Your task to perform on an android device: create a new album in the google photos Image 0: 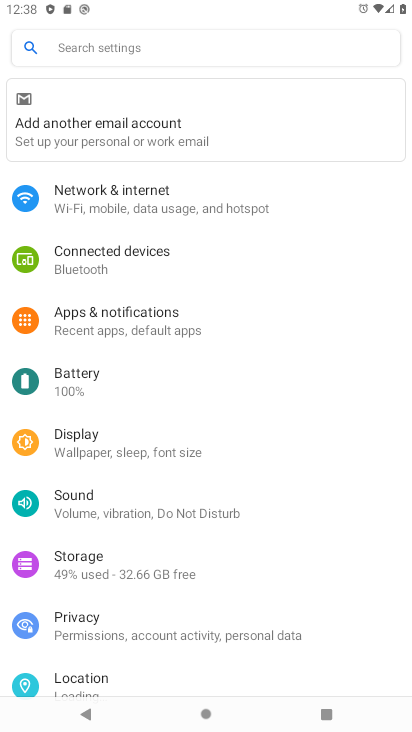
Step 0: press back button
Your task to perform on an android device: create a new album in the google photos Image 1: 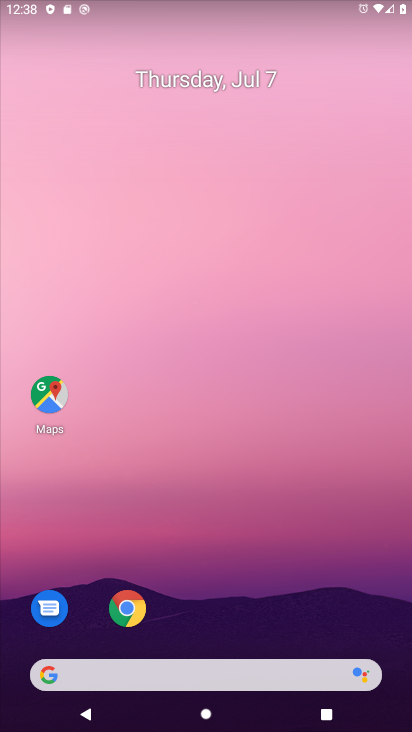
Step 1: drag from (204, 558) to (233, 0)
Your task to perform on an android device: create a new album in the google photos Image 2: 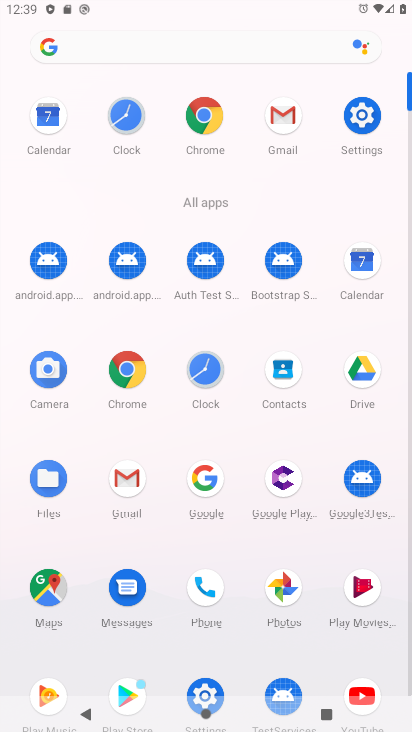
Step 2: click (276, 594)
Your task to perform on an android device: create a new album in the google photos Image 3: 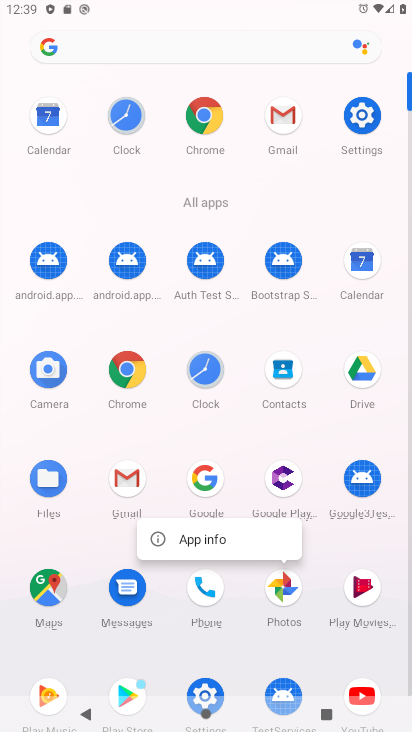
Step 3: click (276, 594)
Your task to perform on an android device: create a new album in the google photos Image 4: 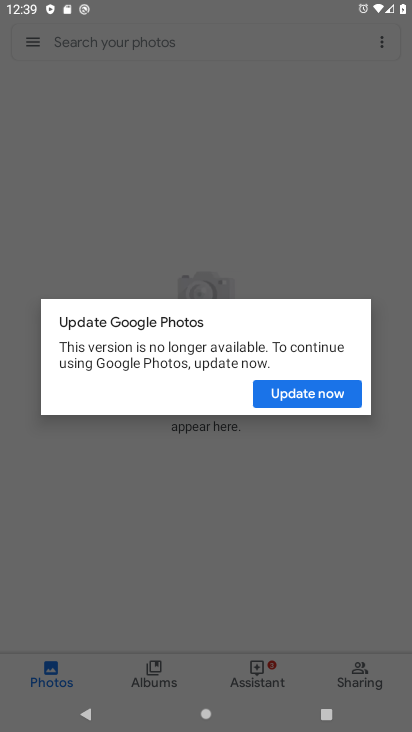
Step 4: press back button
Your task to perform on an android device: create a new album in the google photos Image 5: 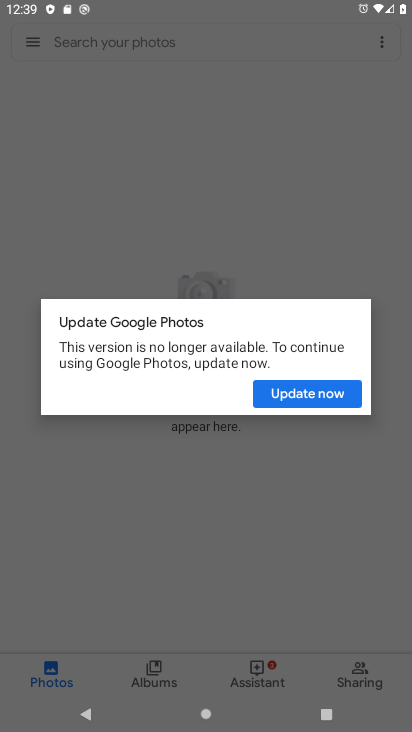
Step 5: press back button
Your task to perform on an android device: create a new album in the google photos Image 6: 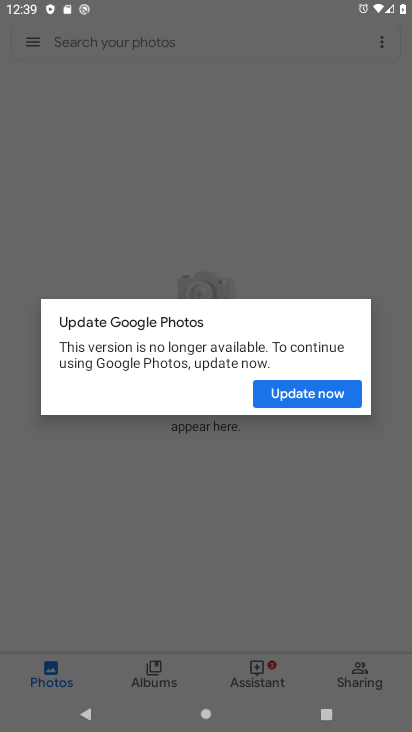
Step 6: press home button
Your task to perform on an android device: create a new album in the google photos Image 7: 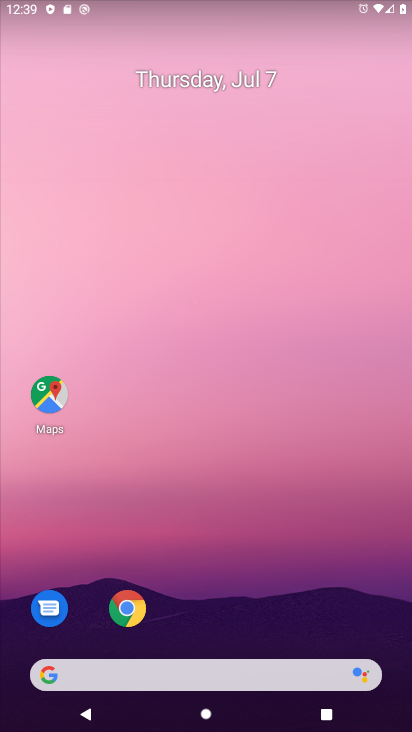
Step 7: drag from (167, 621) to (273, 38)
Your task to perform on an android device: create a new album in the google photos Image 8: 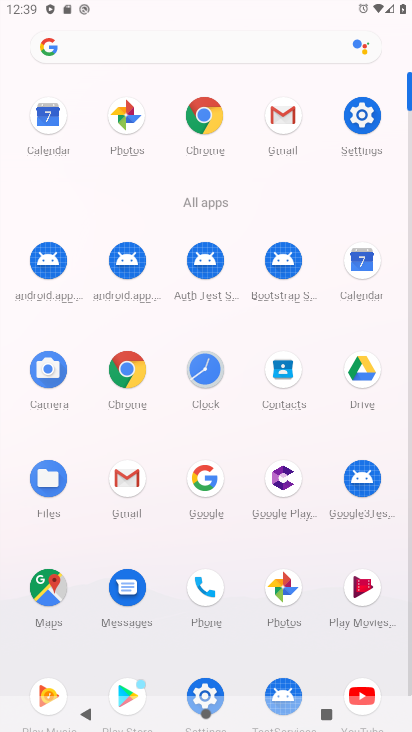
Step 8: click (278, 580)
Your task to perform on an android device: create a new album in the google photos Image 9: 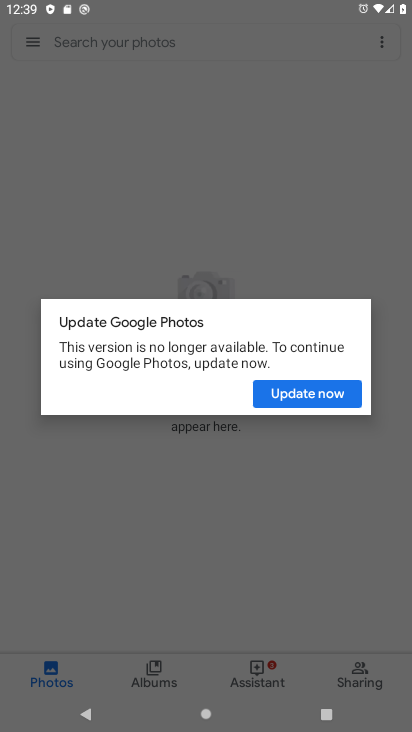
Step 9: click (284, 399)
Your task to perform on an android device: create a new album in the google photos Image 10: 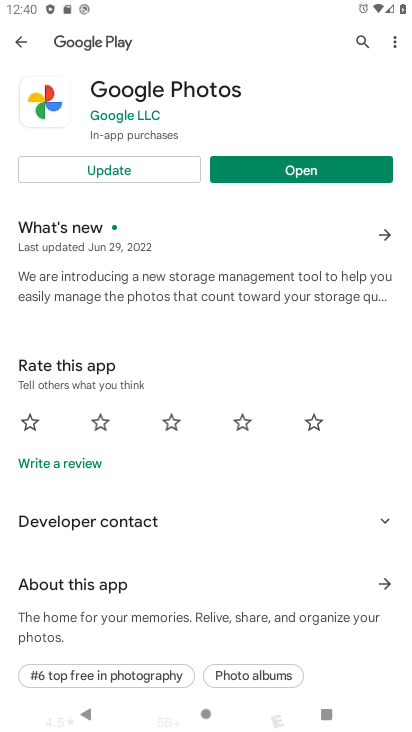
Step 10: click (333, 163)
Your task to perform on an android device: create a new album in the google photos Image 11: 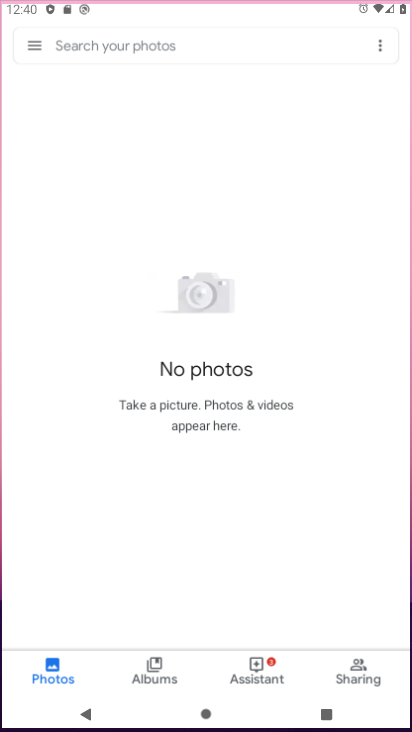
Step 11: click (287, 169)
Your task to perform on an android device: create a new album in the google photos Image 12: 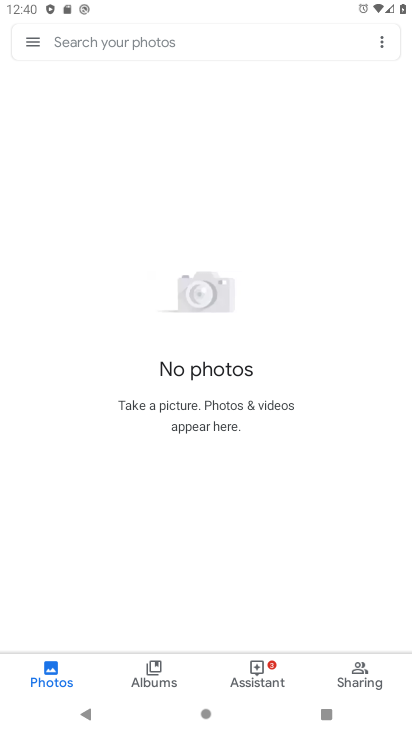
Step 12: click (25, 36)
Your task to perform on an android device: create a new album in the google photos Image 13: 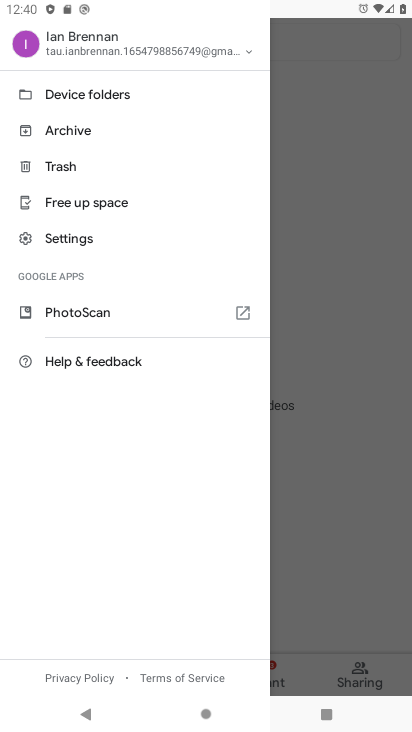
Step 13: click (365, 259)
Your task to perform on an android device: create a new album in the google photos Image 14: 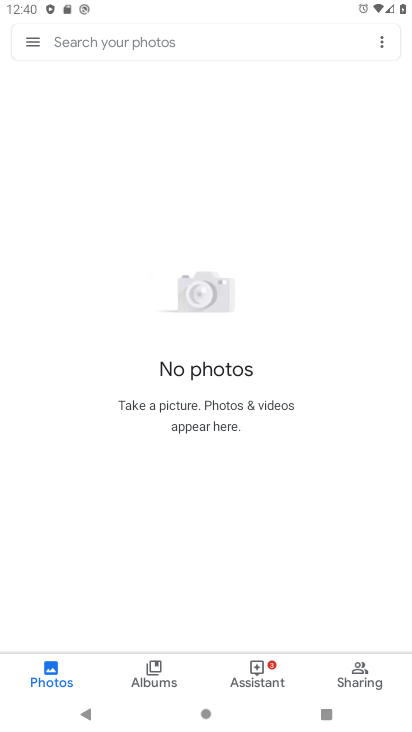
Step 14: click (166, 652)
Your task to perform on an android device: create a new album in the google photos Image 15: 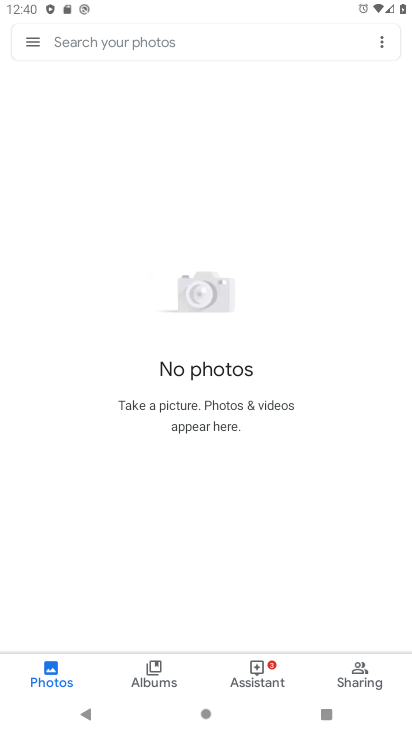
Step 15: click (148, 672)
Your task to perform on an android device: create a new album in the google photos Image 16: 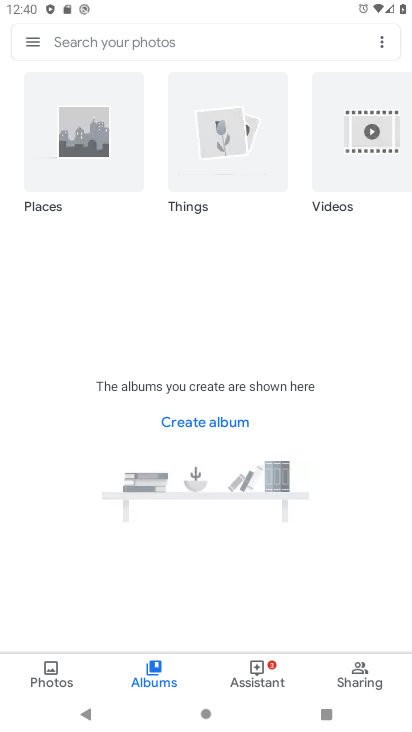
Step 16: click (211, 425)
Your task to perform on an android device: create a new album in the google photos Image 17: 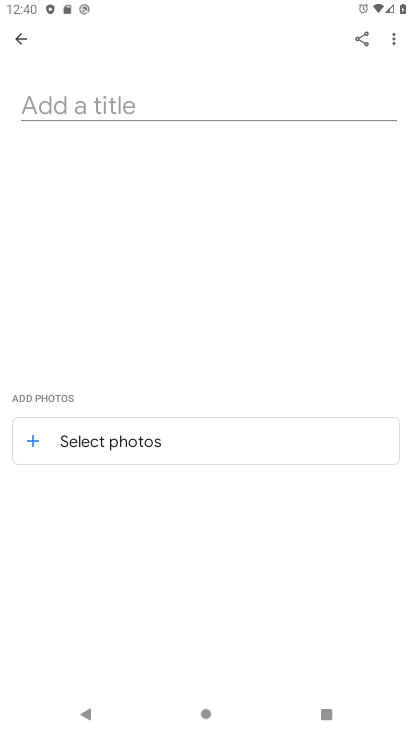
Step 17: click (42, 91)
Your task to perform on an android device: create a new album in the google photos Image 18: 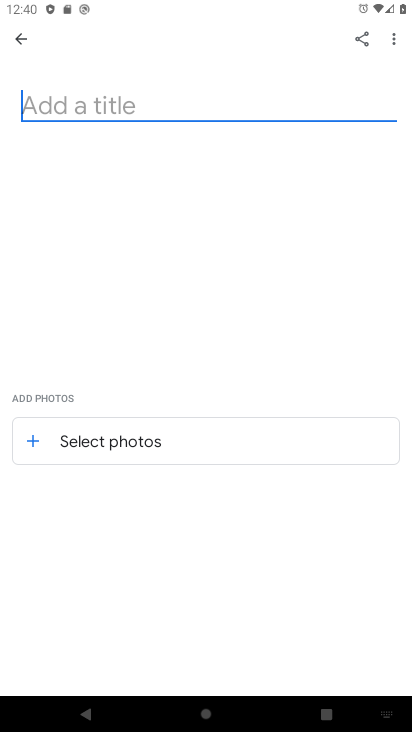
Step 18: type "hbhb"
Your task to perform on an android device: create a new album in the google photos Image 19: 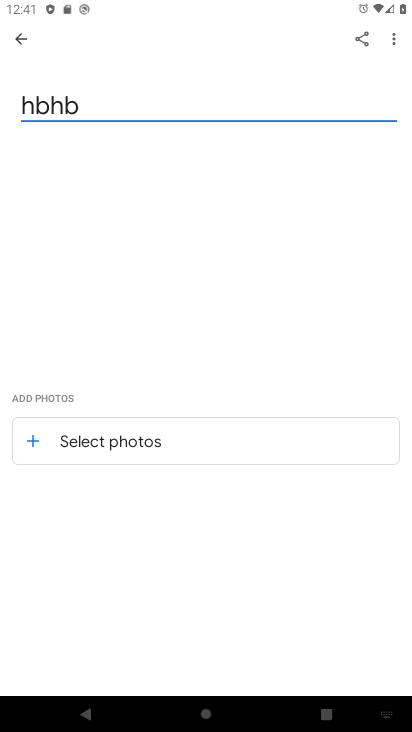
Step 19: click (93, 456)
Your task to perform on an android device: create a new album in the google photos Image 20: 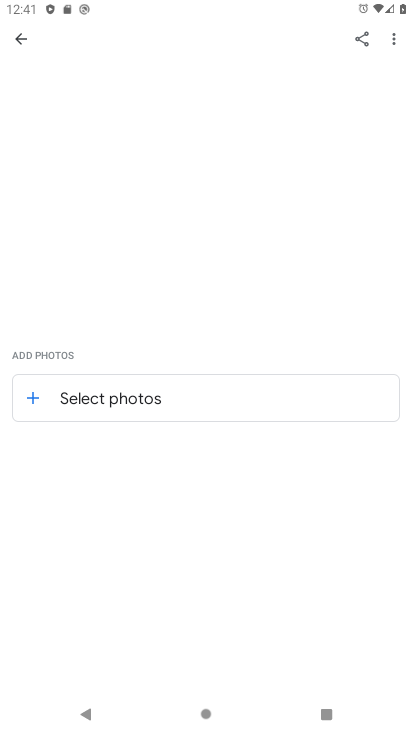
Step 20: click (95, 393)
Your task to perform on an android device: create a new album in the google photos Image 21: 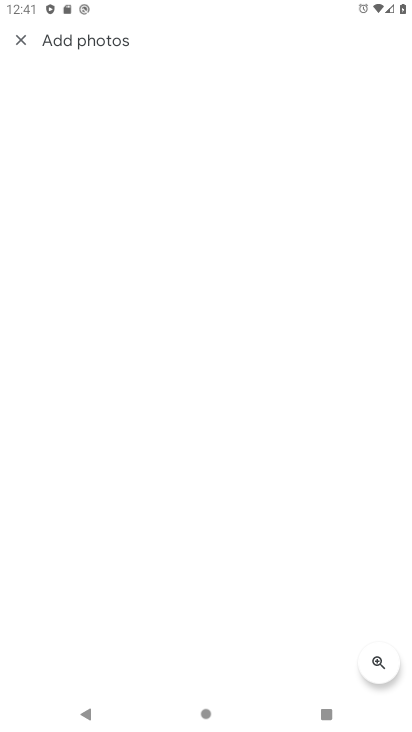
Step 21: click (19, 36)
Your task to perform on an android device: create a new album in the google photos Image 22: 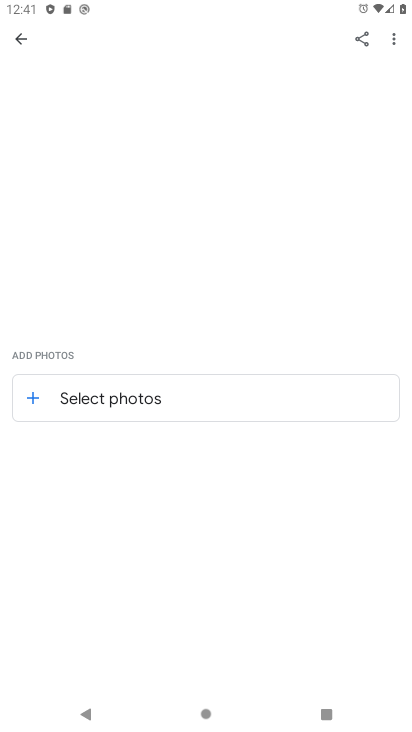
Step 22: click (86, 384)
Your task to perform on an android device: create a new album in the google photos Image 23: 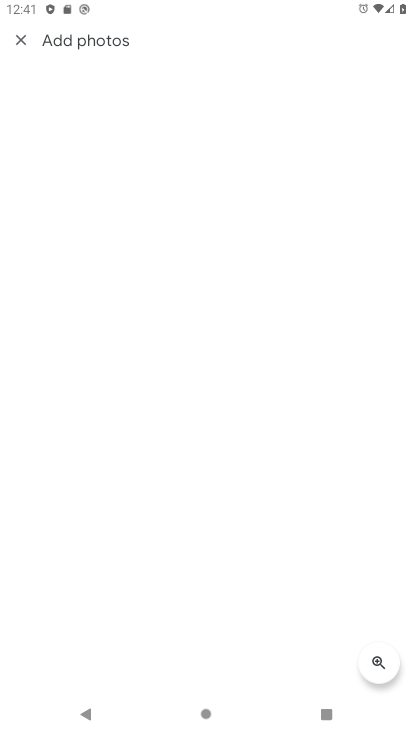
Step 23: task complete